Your task to perform on an android device: Open the phone app and click the voicemail tab. Image 0: 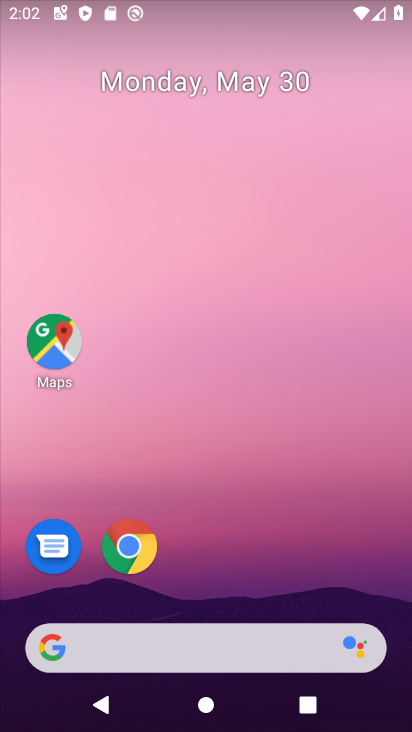
Step 0: drag from (211, 603) to (209, 424)
Your task to perform on an android device: Open the phone app and click the voicemail tab. Image 1: 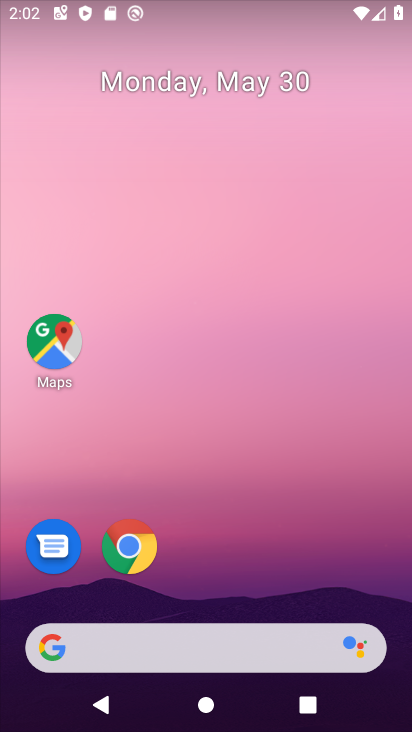
Step 1: drag from (209, 175) to (209, 31)
Your task to perform on an android device: Open the phone app and click the voicemail tab. Image 2: 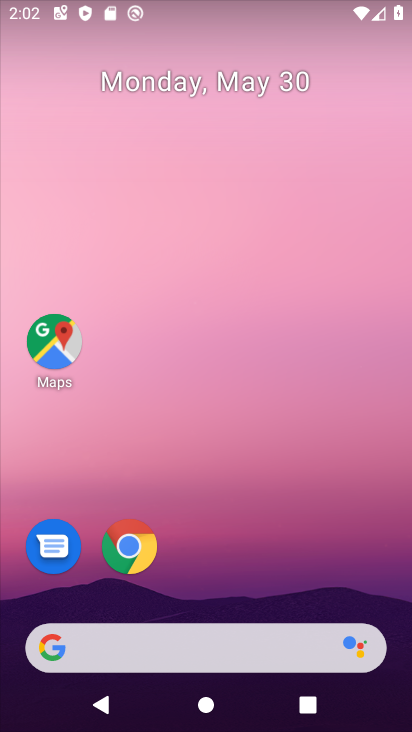
Step 2: drag from (232, 584) to (233, 84)
Your task to perform on an android device: Open the phone app and click the voicemail tab. Image 3: 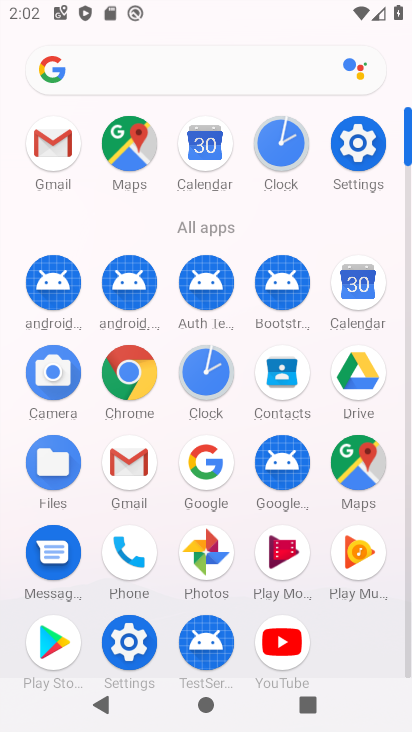
Step 3: click (124, 545)
Your task to perform on an android device: Open the phone app and click the voicemail tab. Image 4: 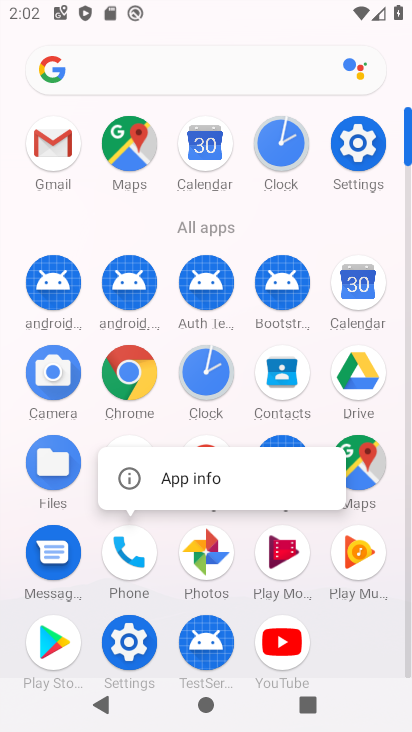
Step 4: click (131, 545)
Your task to perform on an android device: Open the phone app and click the voicemail tab. Image 5: 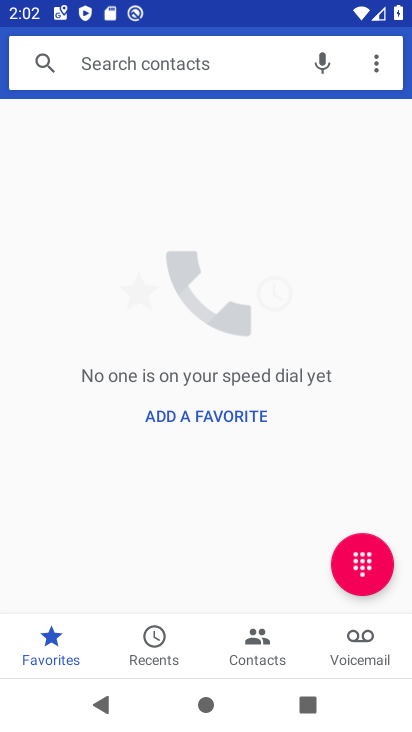
Step 5: click (355, 626)
Your task to perform on an android device: Open the phone app and click the voicemail tab. Image 6: 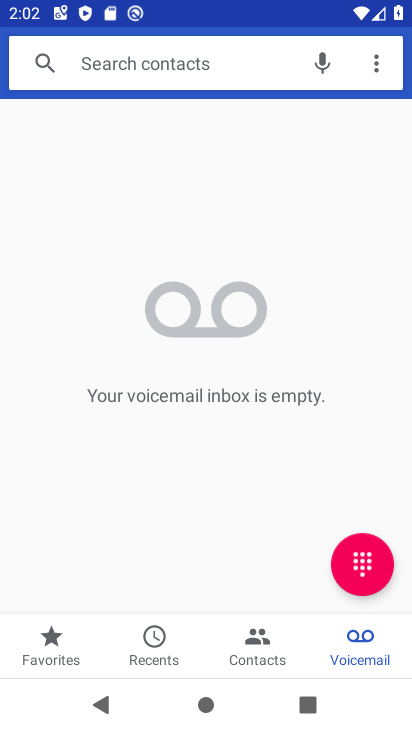
Step 6: task complete